Your task to perform on an android device: Do I have any events today? Image 0: 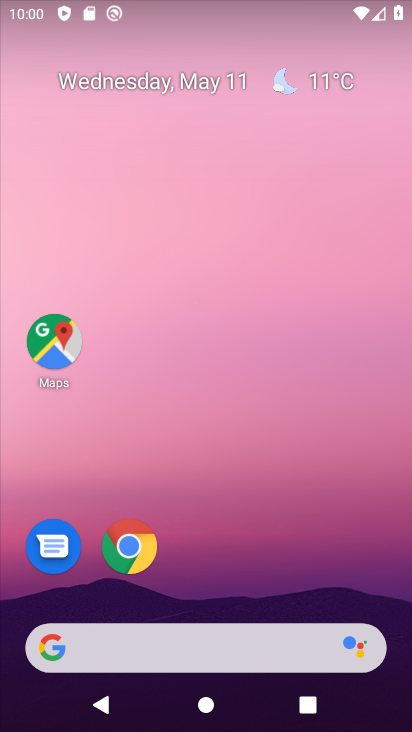
Step 0: press home button
Your task to perform on an android device: Do I have any events today? Image 1: 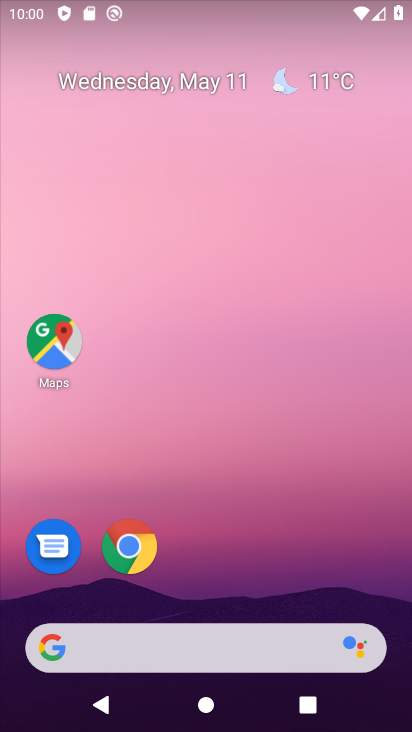
Step 1: drag from (234, 584) to (271, 83)
Your task to perform on an android device: Do I have any events today? Image 2: 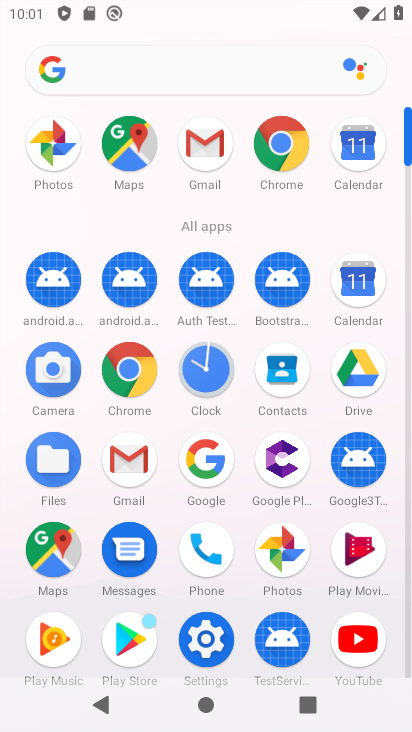
Step 2: click (353, 277)
Your task to perform on an android device: Do I have any events today? Image 3: 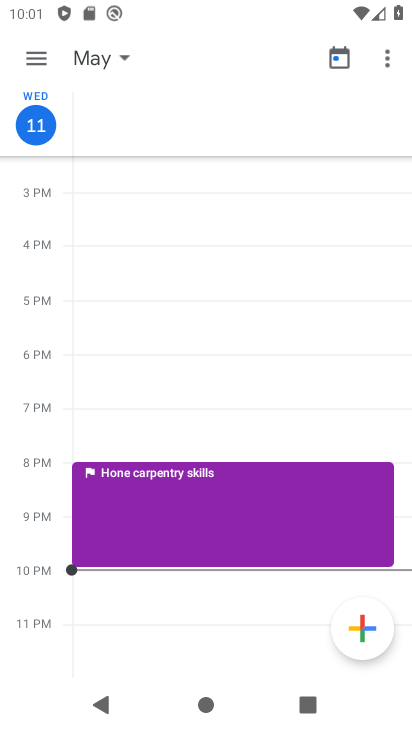
Step 3: click (35, 57)
Your task to perform on an android device: Do I have any events today? Image 4: 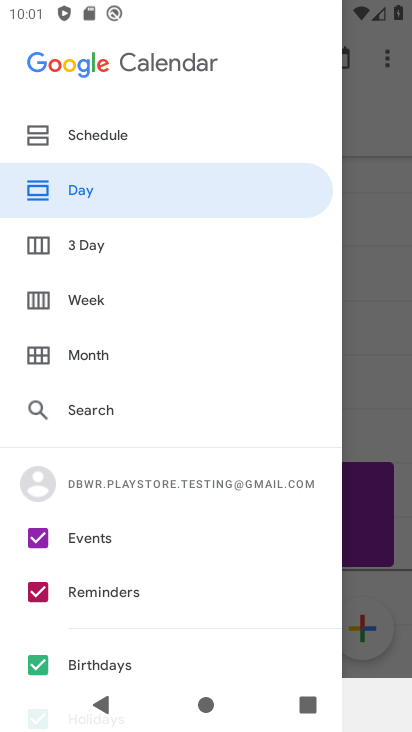
Step 4: click (92, 133)
Your task to perform on an android device: Do I have any events today? Image 5: 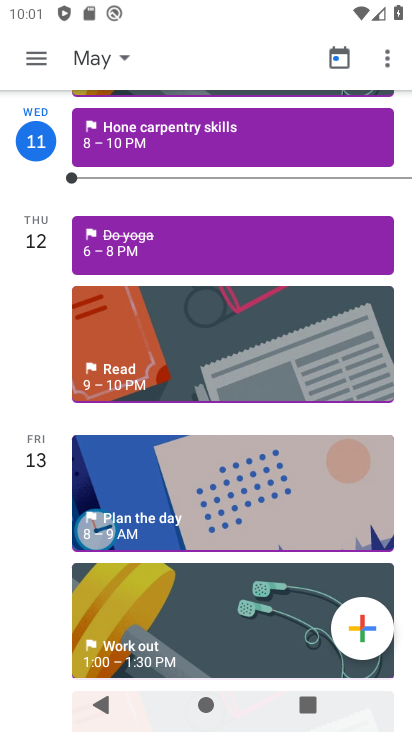
Step 5: task complete